Your task to perform on an android device: Turn off the flashlight Image 0: 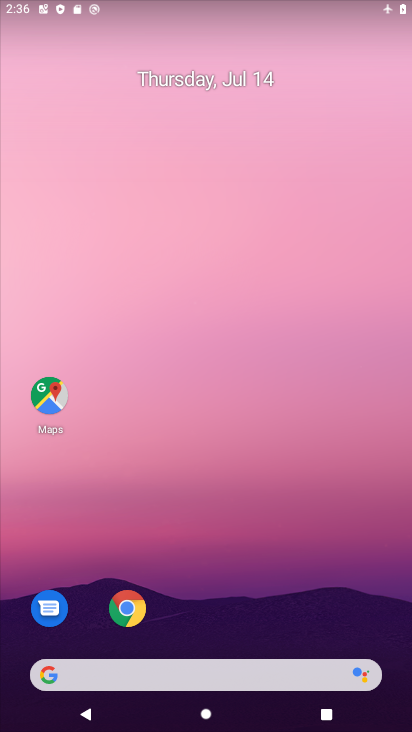
Step 0: drag from (246, 544) to (321, 50)
Your task to perform on an android device: Turn off the flashlight Image 1: 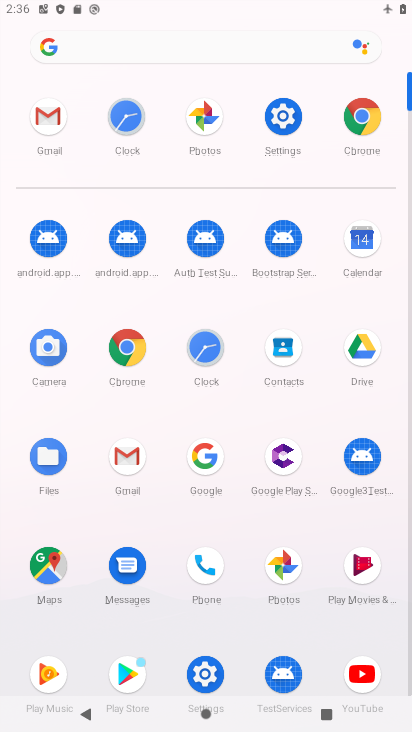
Step 1: click (281, 121)
Your task to perform on an android device: Turn off the flashlight Image 2: 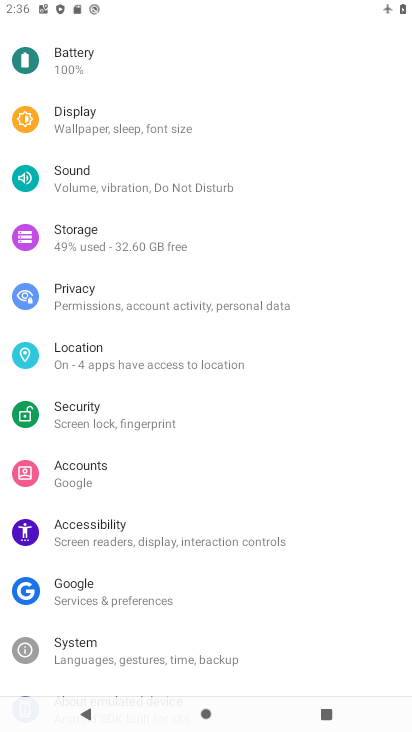
Step 2: drag from (164, 179) to (164, 730)
Your task to perform on an android device: Turn off the flashlight Image 3: 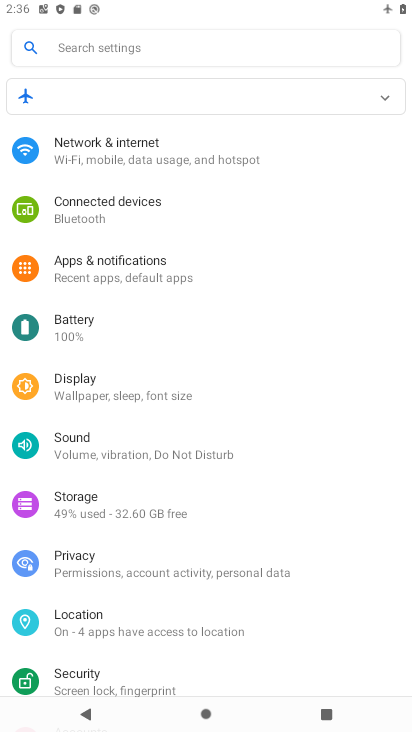
Step 3: click (154, 40)
Your task to perform on an android device: Turn off the flashlight Image 4: 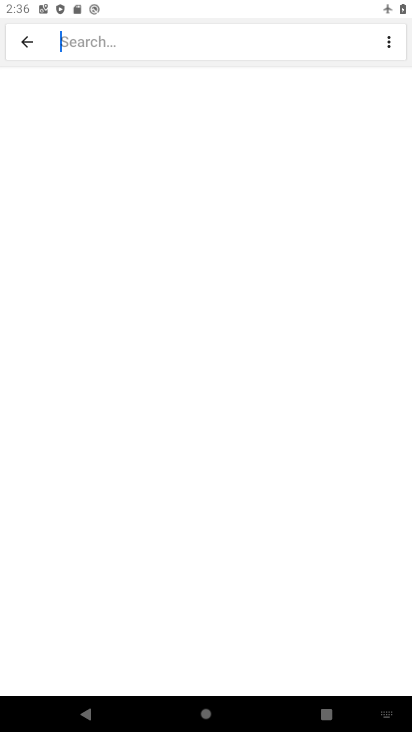
Step 4: type "flashlight"
Your task to perform on an android device: Turn off the flashlight Image 5: 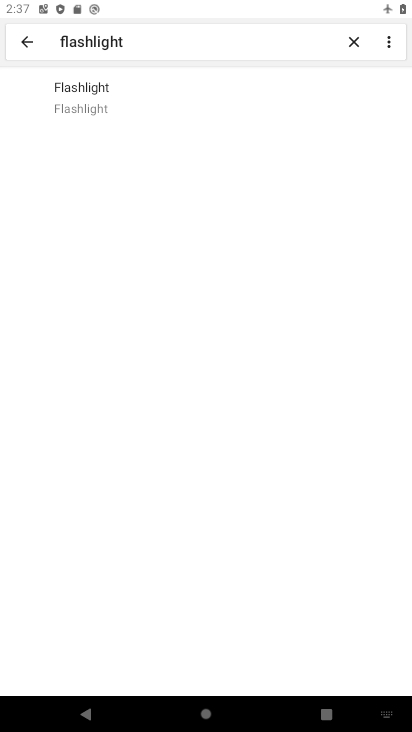
Step 5: click (105, 93)
Your task to perform on an android device: Turn off the flashlight Image 6: 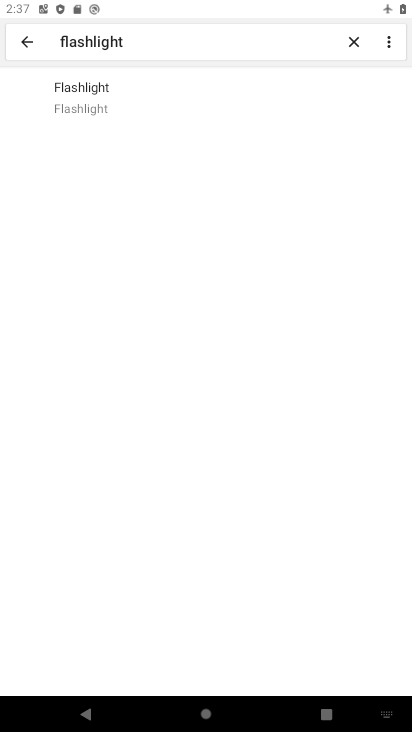
Step 6: task complete